Your task to perform on an android device: turn off translation in the chrome app Image 0: 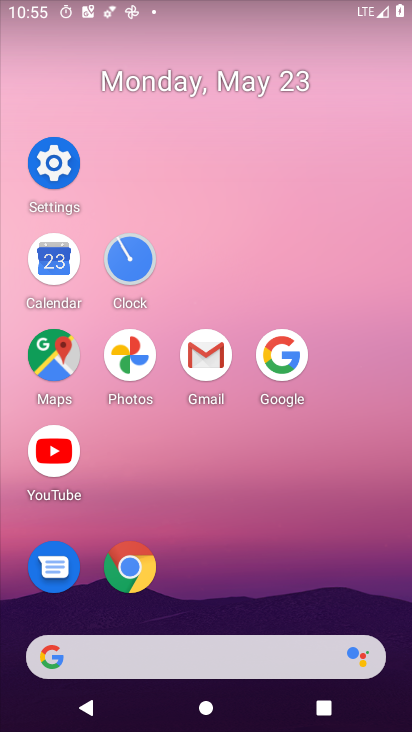
Step 0: click (122, 582)
Your task to perform on an android device: turn off translation in the chrome app Image 1: 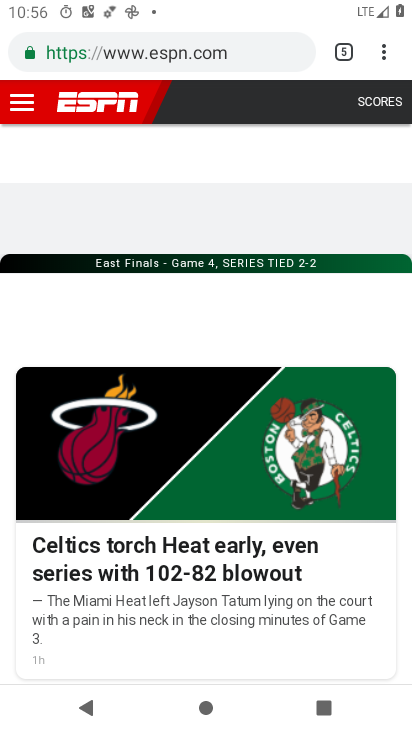
Step 1: click (386, 46)
Your task to perform on an android device: turn off translation in the chrome app Image 2: 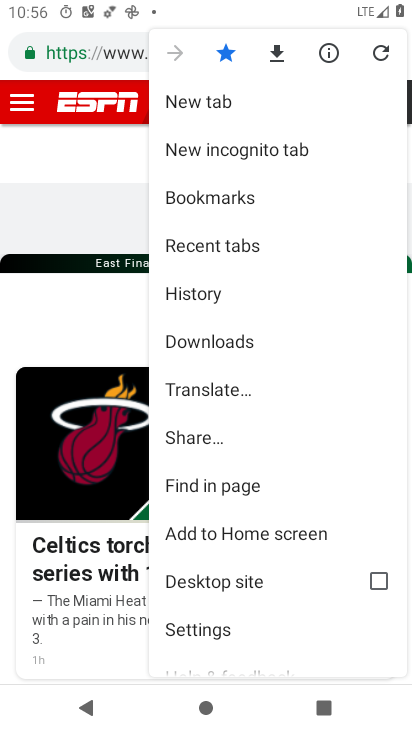
Step 2: drag from (232, 604) to (224, 274)
Your task to perform on an android device: turn off translation in the chrome app Image 3: 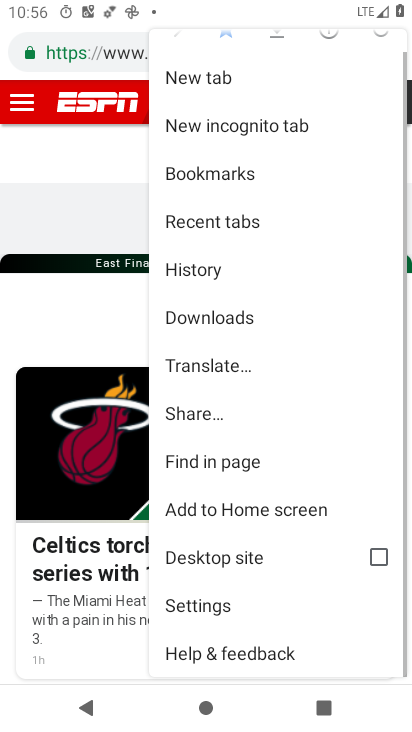
Step 3: click (231, 596)
Your task to perform on an android device: turn off translation in the chrome app Image 4: 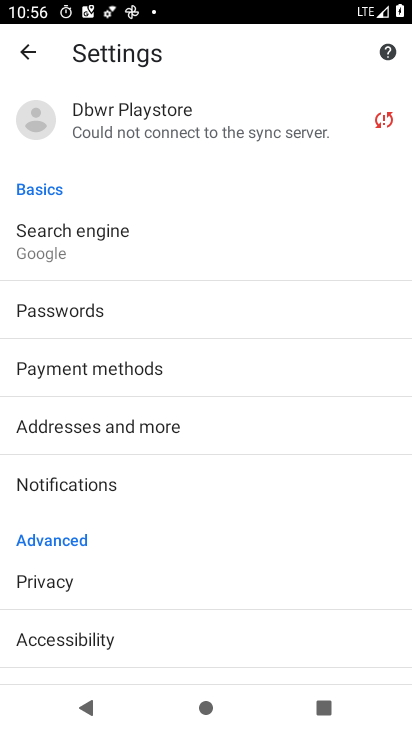
Step 4: drag from (150, 570) to (181, 156)
Your task to perform on an android device: turn off translation in the chrome app Image 5: 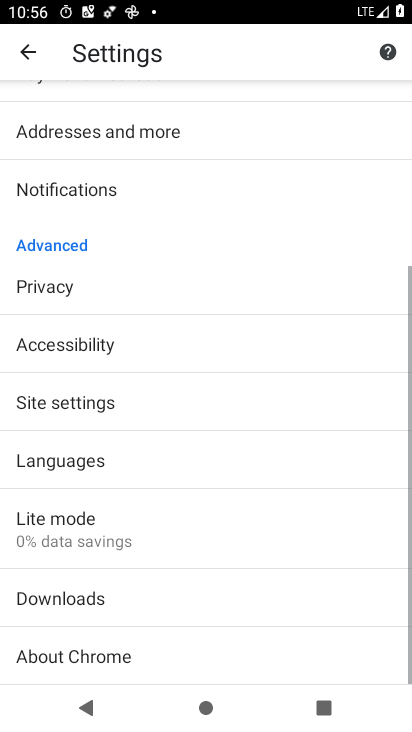
Step 5: click (121, 475)
Your task to perform on an android device: turn off translation in the chrome app Image 6: 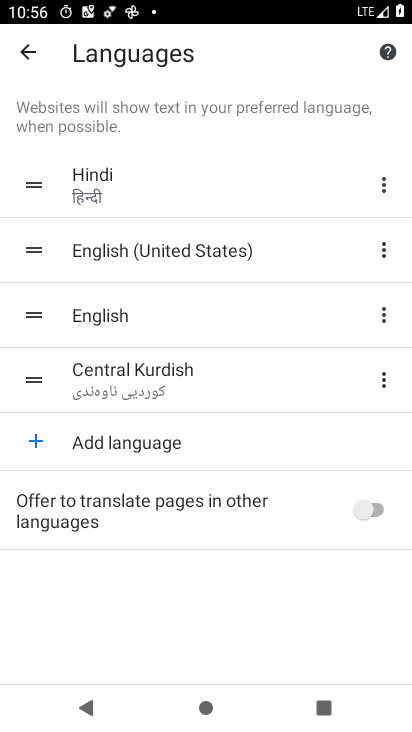
Step 6: task complete